Your task to perform on an android device: Open calendar and show me the fourth week of next month Image 0: 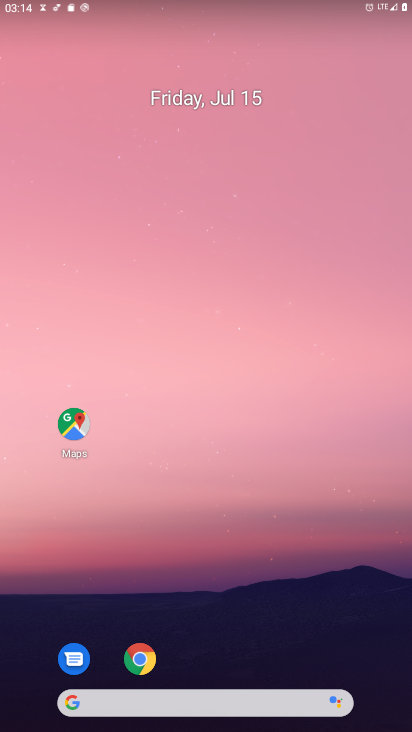
Step 0: drag from (207, 610) to (268, 180)
Your task to perform on an android device: Open calendar and show me the fourth week of next month Image 1: 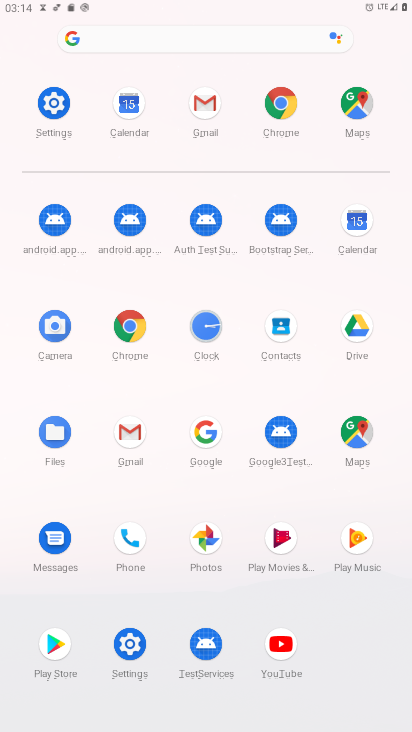
Step 1: click (358, 210)
Your task to perform on an android device: Open calendar and show me the fourth week of next month Image 2: 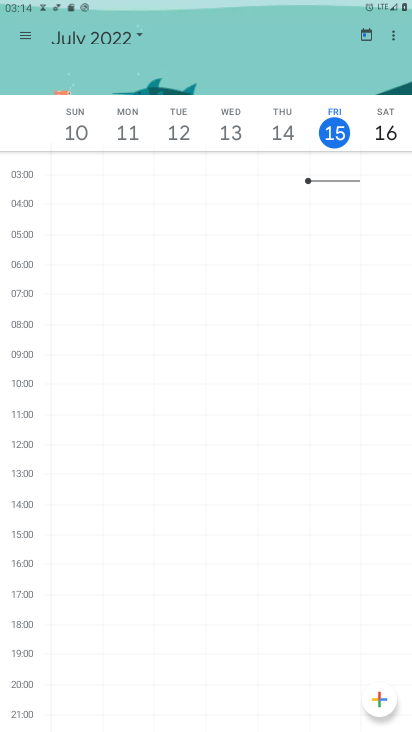
Step 2: click (24, 35)
Your task to perform on an android device: Open calendar and show me the fourth week of next month Image 3: 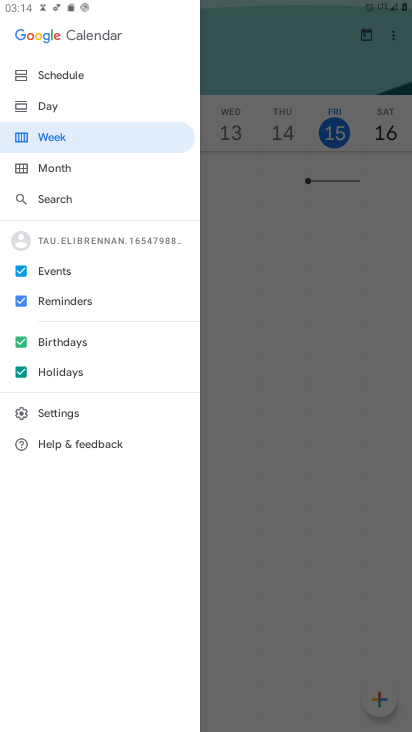
Step 3: click (54, 171)
Your task to perform on an android device: Open calendar and show me the fourth week of next month Image 4: 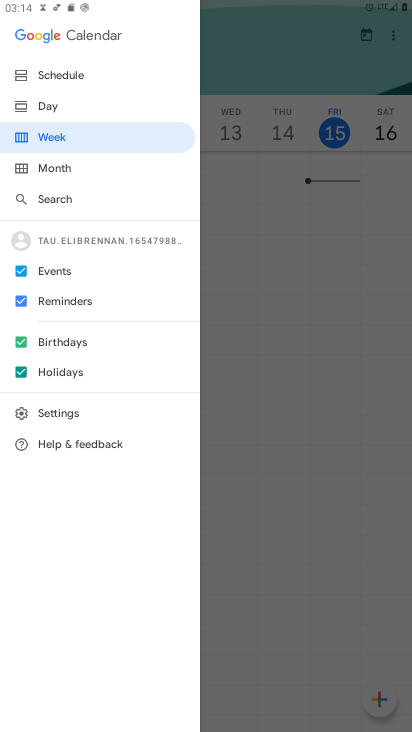
Step 4: click (316, 447)
Your task to perform on an android device: Open calendar and show me the fourth week of next month Image 5: 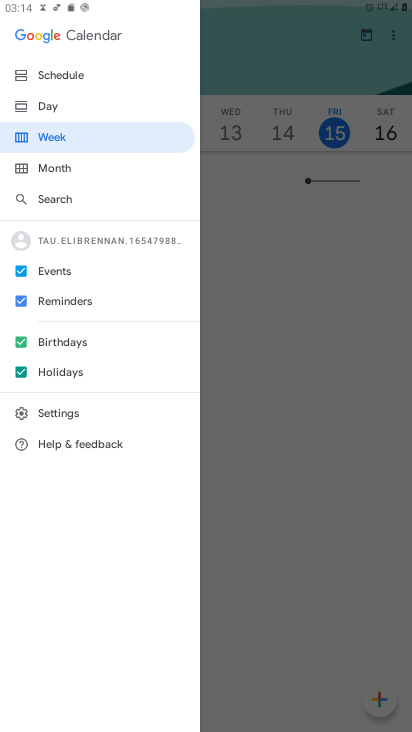
Step 5: click (27, 167)
Your task to perform on an android device: Open calendar and show me the fourth week of next month Image 6: 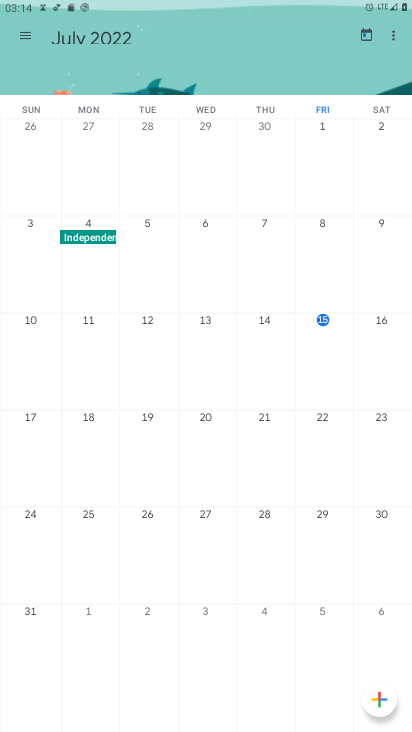
Step 6: drag from (299, 451) to (17, 313)
Your task to perform on an android device: Open calendar and show me the fourth week of next month Image 7: 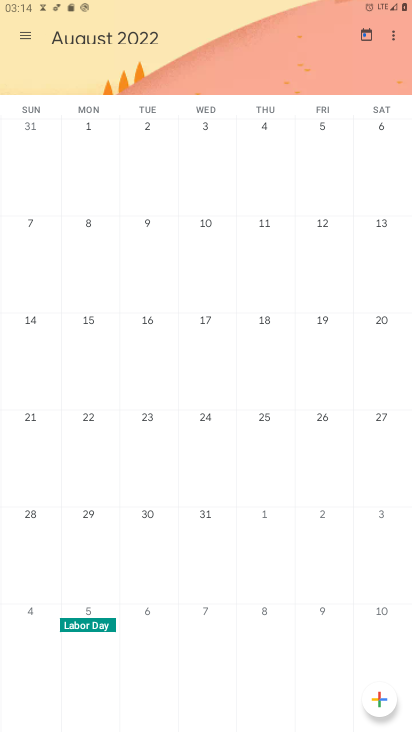
Step 7: click (35, 32)
Your task to perform on an android device: Open calendar and show me the fourth week of next month Image 8: 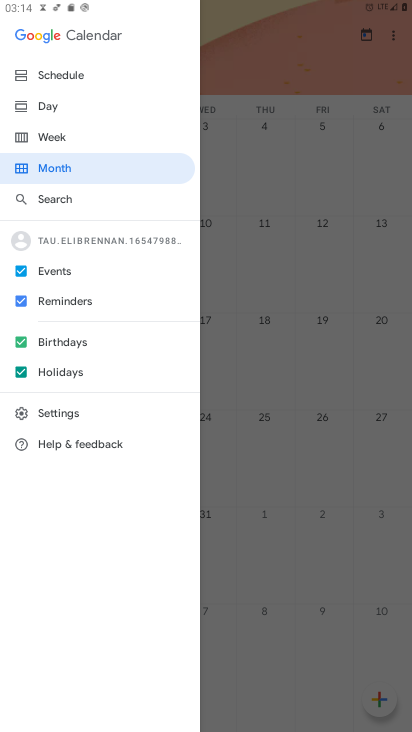
Step 8: click (65, 134)
Your task to perform on an android device: Open calendar and show me the fourth week of next month Image 9: 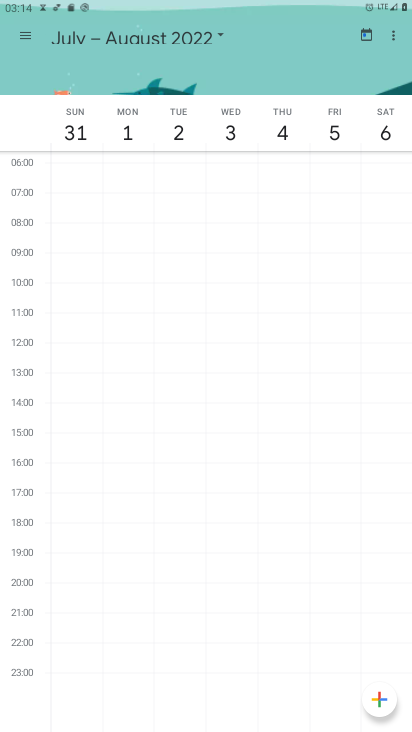
Step 9: task complete